Your task to perform on an android device: Go to Yahoo.com Image 0: 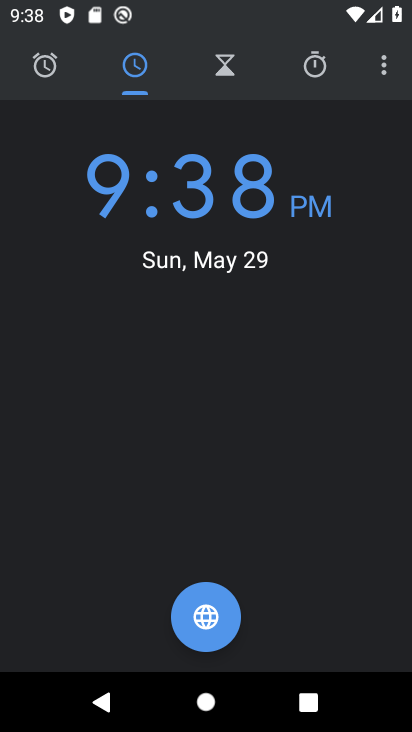
Step 0: press home button
Your task to perform on an android device: Go to Yahoo.com Image 1: 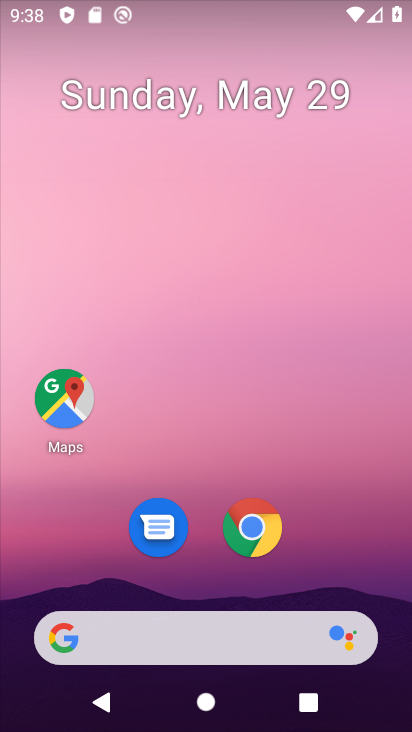
Step 1: click (252, 533)
Your task to perform on an android device: Go to Yahoo.com Image 2: 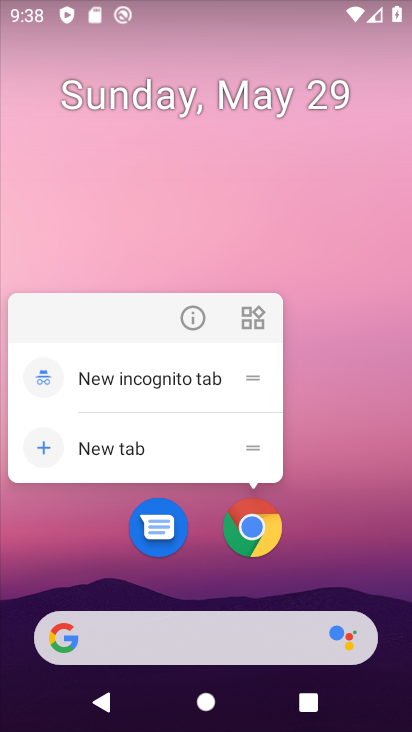
Step 2: click (260, 522)
Your task to perform on an android device: Go to Yahoo.com Image 3: 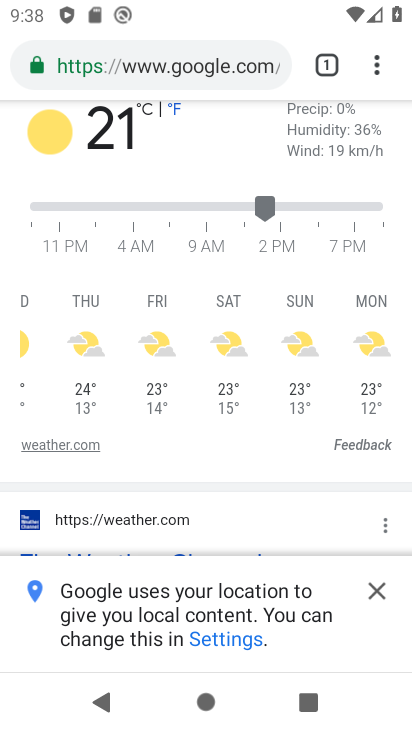
Step 3: click (243, 62)
Your task to perform on an android device: Go to Yahoo.com Image 4: 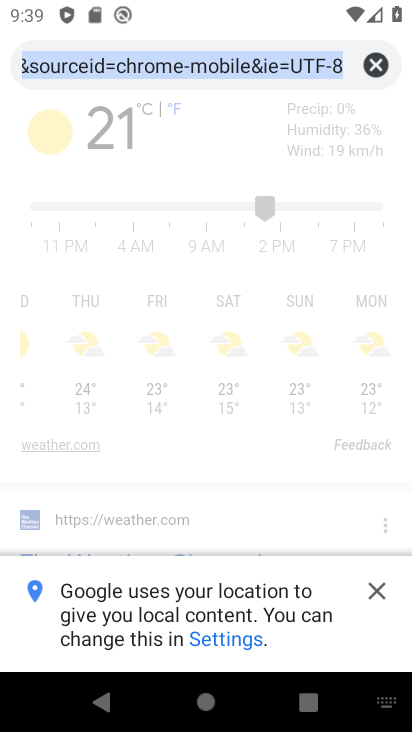
Step 4: type "yahoo.com"
Your task to perform on an android device: Go to Yahoo.com Image 5: 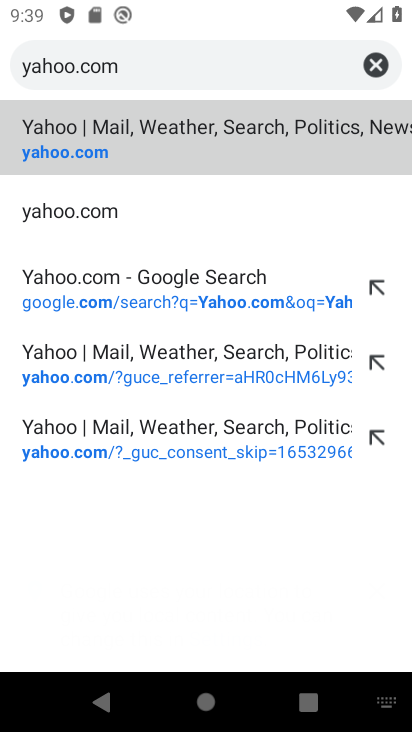
Step 5: click (89, 149)
Your task to perform on an android device: Go to Yahoo.com Image 6: 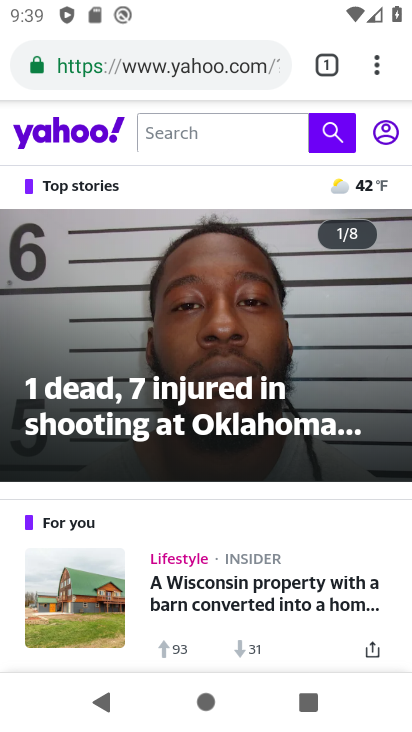
Step 6: task complete